Your task to perform on an android device: set the stopwatch Image 0: 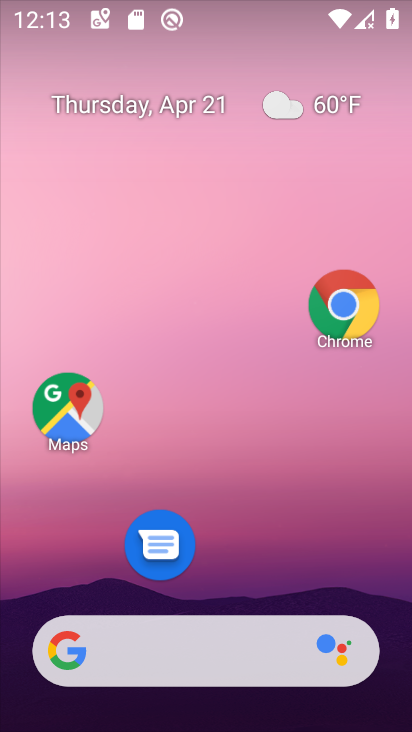
Step 0: drag from (257, 628) to (252, 72)
Your task to perform on an android device: set the stopwatch Image 1: 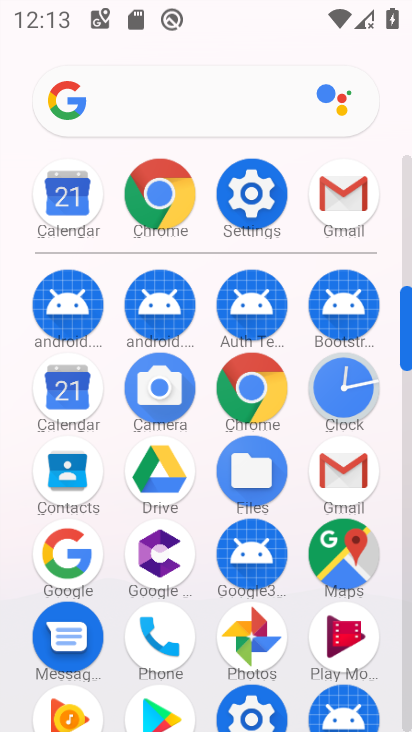
Step 1: click (334, 396)
Your task to perform on an android device: set the stopwatch Image 2: 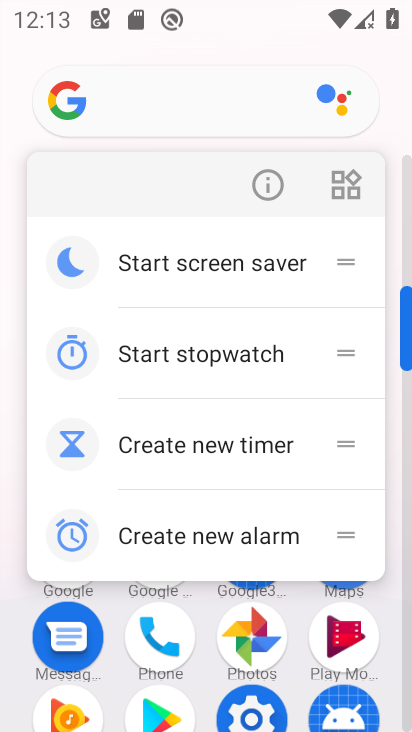
Step 2: click (391, 473)
Your task to perform on an android device: set the stopwatch Image 3: 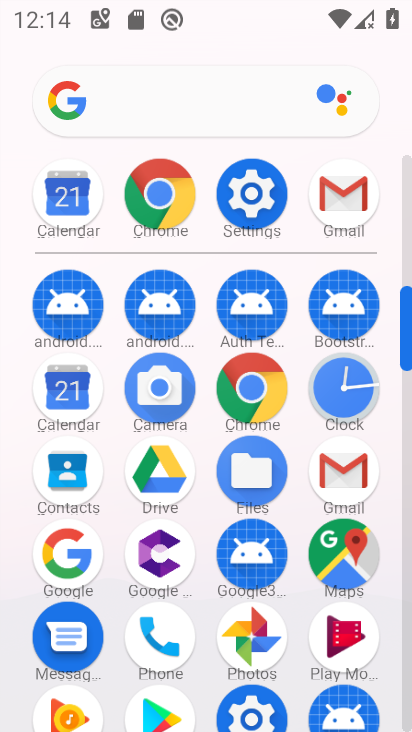
Step 3: click (334, 409)
Your task to perform on an android device: set the stopwatch Image 4: 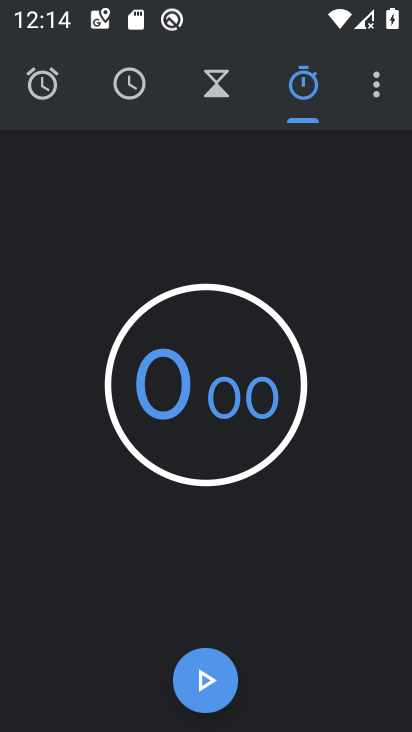
Step 4: click (213, 675)
Your task to perform on an android device: set the stopwatch Image 5: 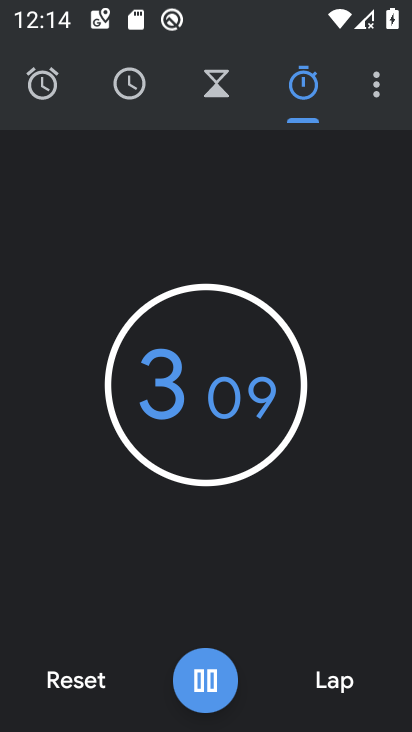
Step 5: task complete